Your task to perform on an android device: change notification settings in the gmail app Image 0: 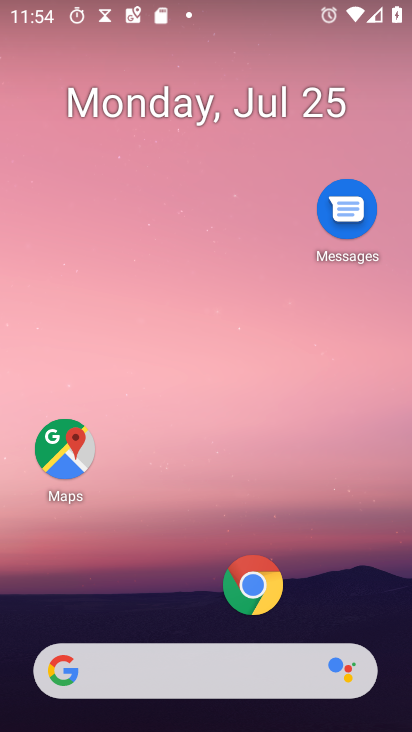
Step 0: press home button
Your task to perform on an android device: change notification settings in the gmail app Image 1: 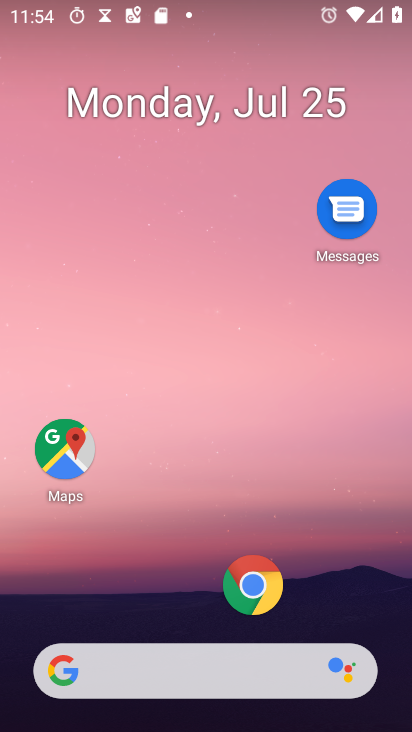
Step 1: drag from (156, 679) to (260, 198)
Your task to perform on an android device: change notification settings in the gmail app Image 2: 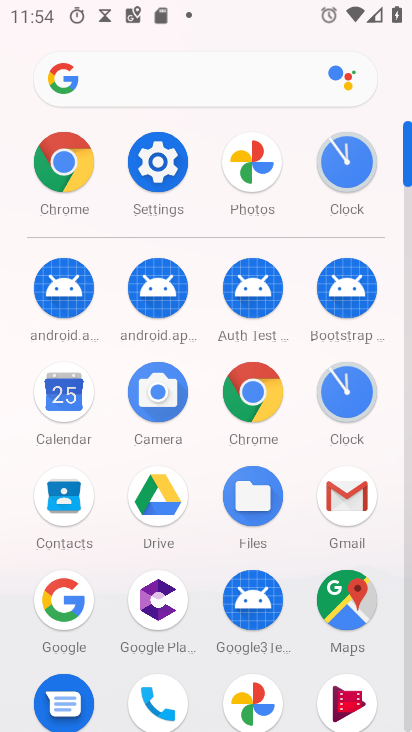
Step 2: click (341, 501)
Your task to perform on an android device: change notification settings in the gmail app Image 3: 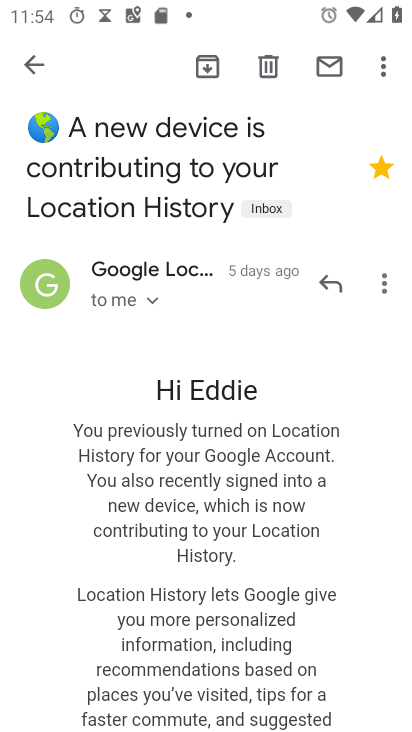
Step 3: click (32, 59)
Your task to perform on an android device: change notification settings in the gmail app Image 4: 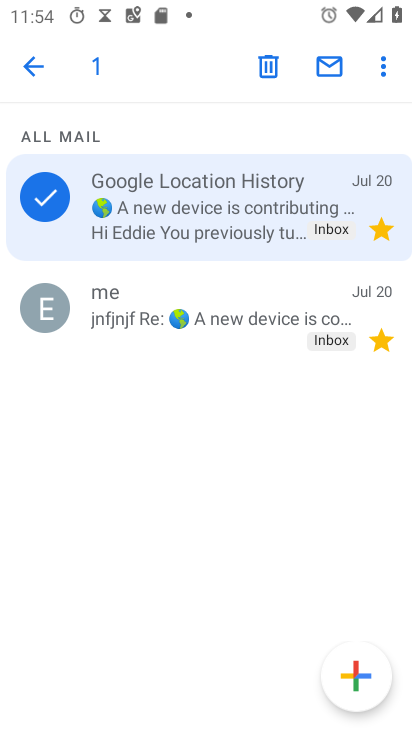
Step 4: click (29, 63)
Your task to perform on an android device: change notification settings in the gmail app Image 5: 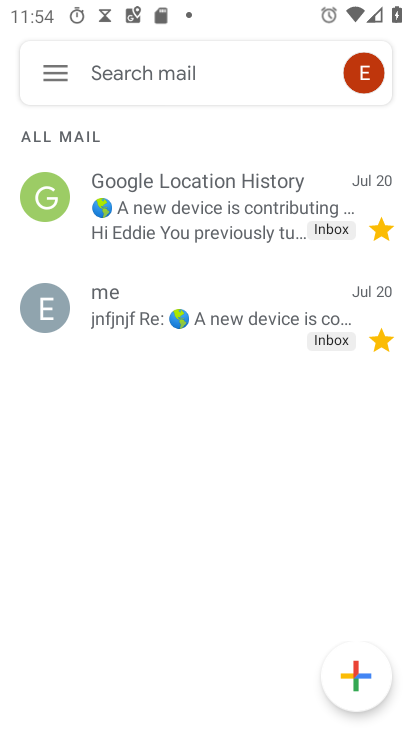
Step 5: click (55, 64)
Your task to perform on an android device: change notification settings in the gmail app Image 6: 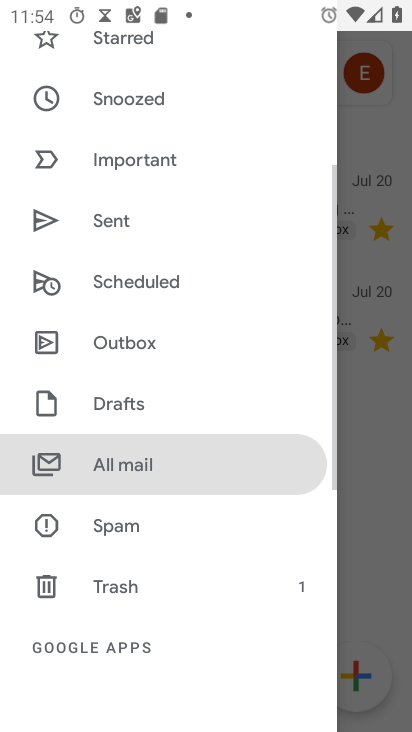
Step 6: drag from (199, 606) to (258, 268)
Your task to perform on an android device: change notification settings in the gmail app Image 7: 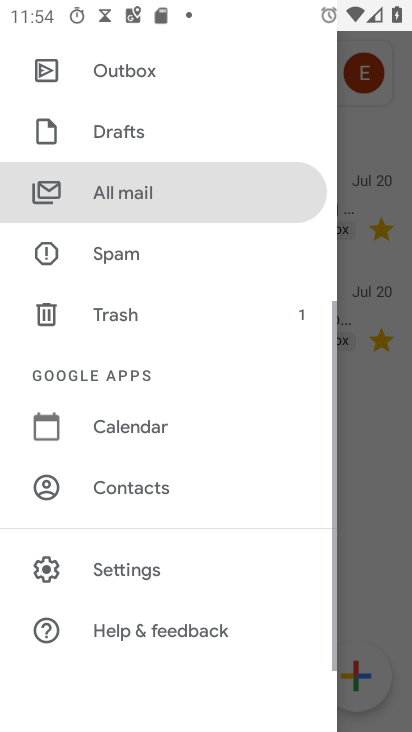
Step 7: click (137, 574)
Your task to perform on an android device: change notification settings in the gmail app Image 8: 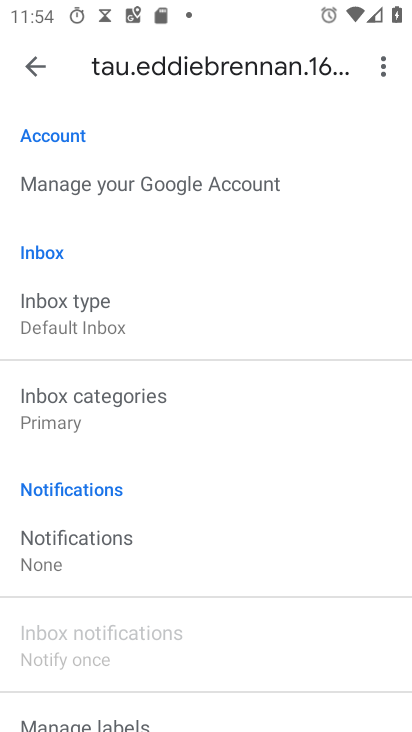
Step 8: click (87, 566)
Your task to perform on an android device: change notification settings in the gmail app Image 9: 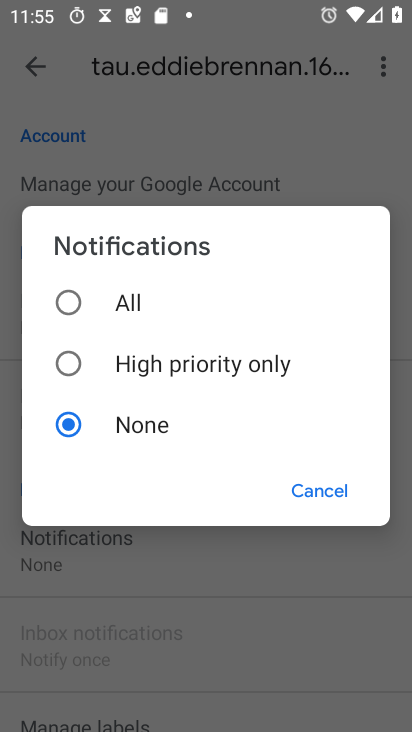
Step 9: click (68, 298)
Your task to perform on an android device: change notification settings in the gmail app Image 10: 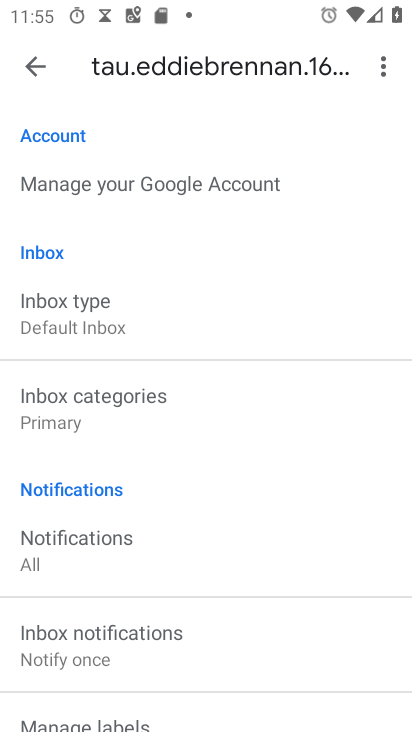
Step 10: task complete